Your task to perform on an android device: Show me popular videos on Youtube Image 0: 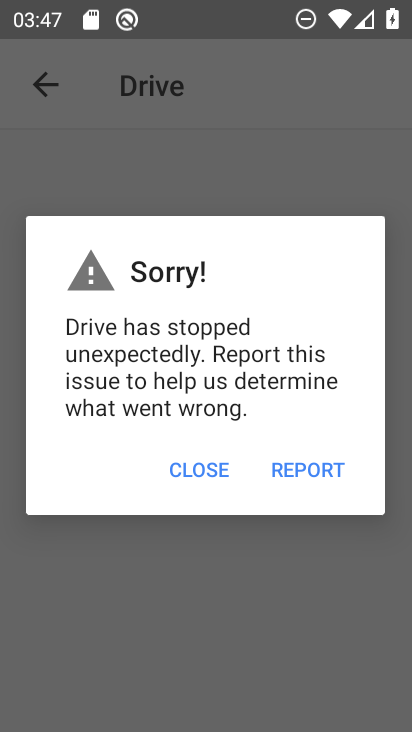
Step 0: press home button
Your task to perform on an android device: Show me popular videos on Youtube Image 1: 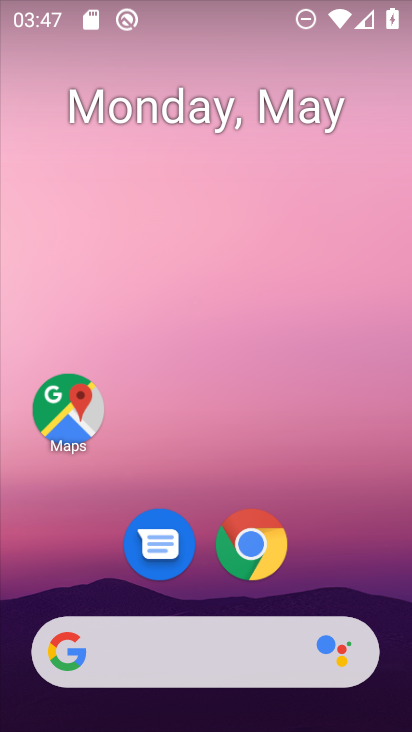
Step 1: drag from (363, 569) to (367, 209)
Your task to perform on an android device: Show me popular videos on Youtube Image 2: 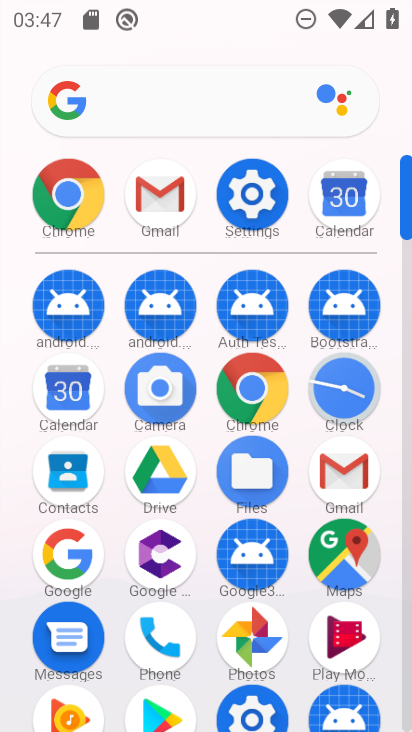
Step 2: drag from (389, 634) to (397, 380)
Your task to perform on an android device: Show me popular videos on Youtube Image 3: 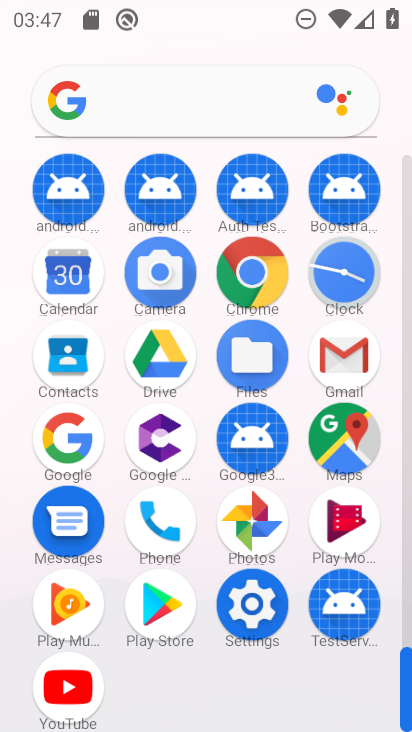
Step 3: click (63, 680)
Your task to perform on an android device: Show me popular videos on Youtube Image 4: 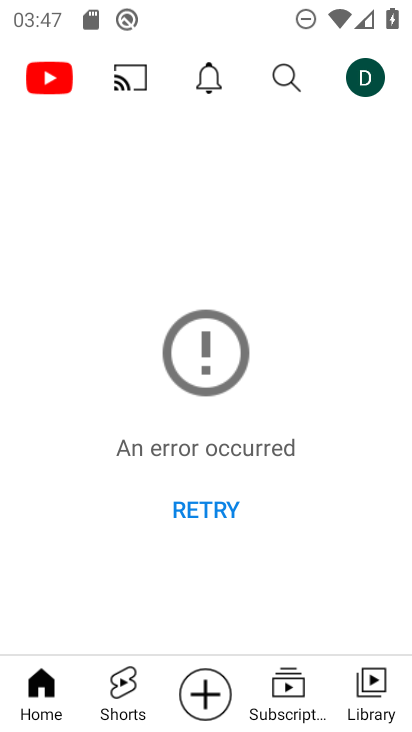
Step 4: task complete